Your task to perform on an android device: move a message to another label in the gmail app Image 0: 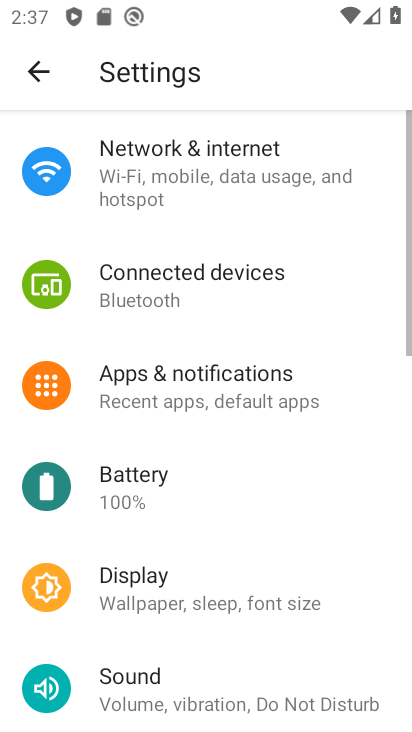
Step 0: press home button
Your task to perform on an android device: move a message to another label in the gmail app Image 1: 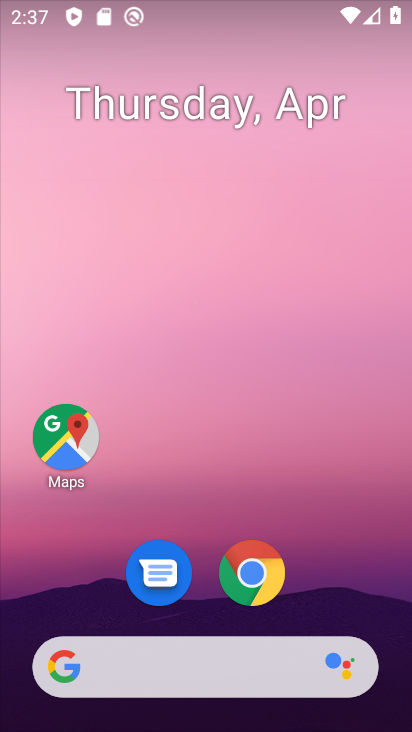
Step 1: drag from (341, 597) to (329, 35)
Your task to perform on an android device: move a message to another label in the gmail app Image 2: 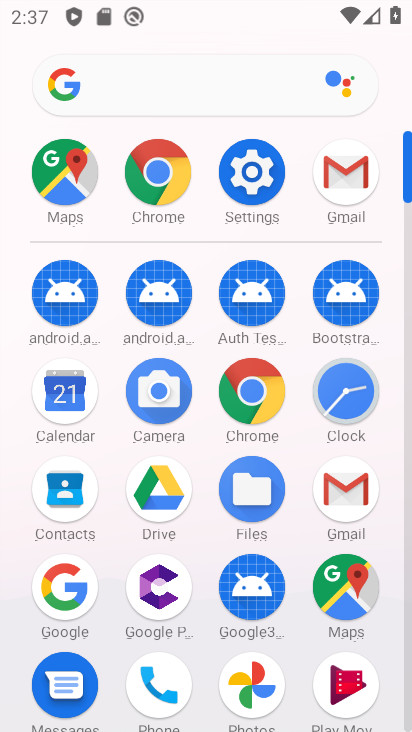
Step 2: click (351, 479)
Your task to perform on an android device: move a message to another label in the gmail app Image 3: 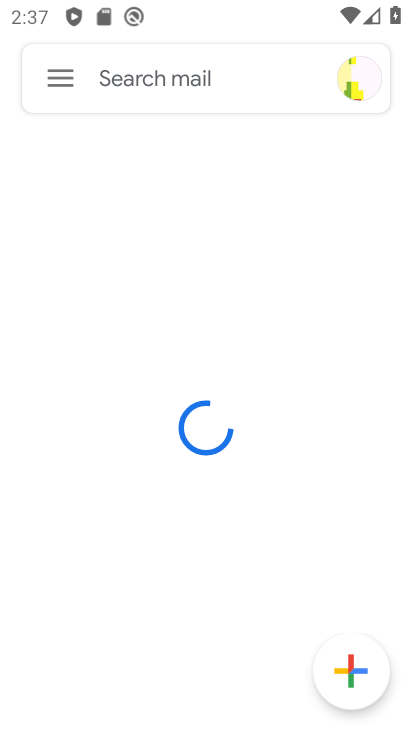
Step 3: click (45, 83)
Your task to perform on an android device: move a message to another label in the gmail app Image 4: 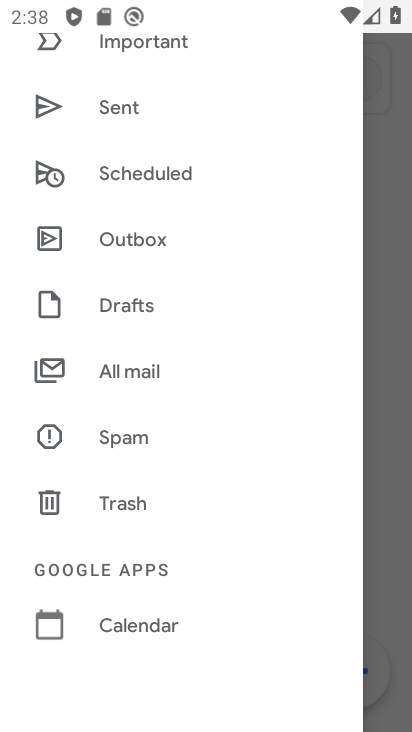
Step 4: click (406, 465)
Your task to perform on an android device: move a message to another label in the gmail app Image 5: 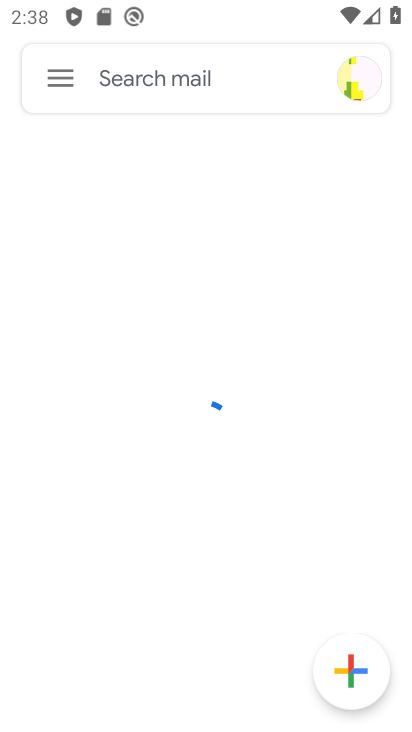
Step 5: task complete